Your task to perform on an android device: Open sound settings Image 0: 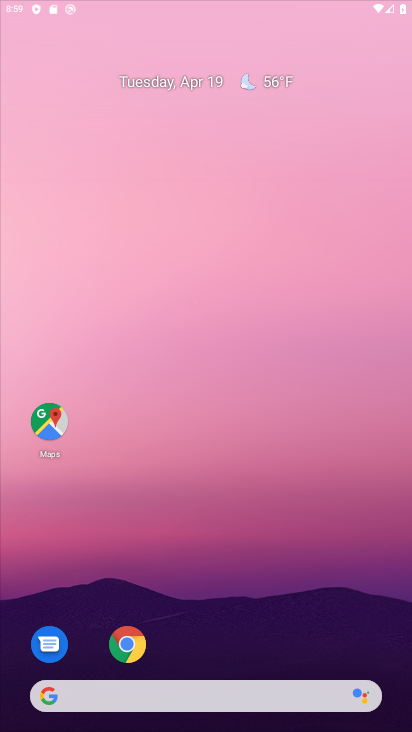
Step 0: drag from (193, 320) to (193, 48)
Your task to perform on an android device: Open sound settings Image 1: 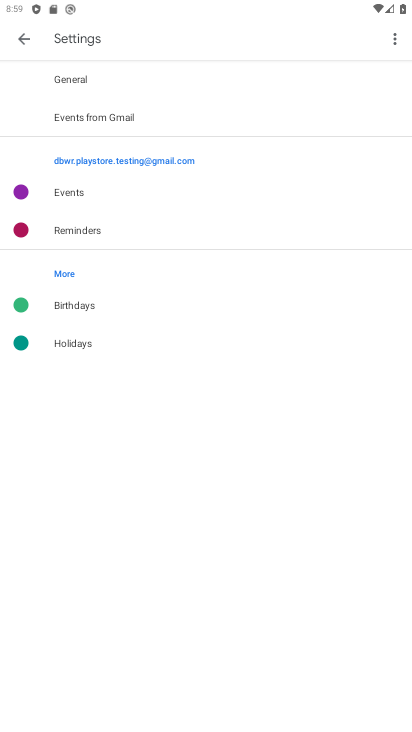
Step 1: press home button
Your task to perform on an android device: Open sound settings Image 2: 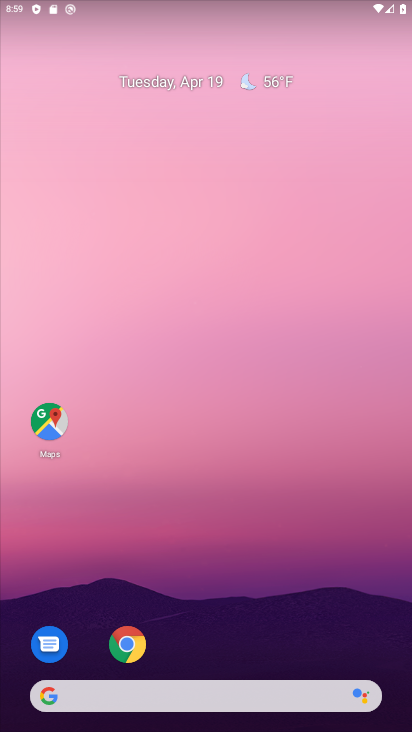
Step 2: drag from (222, 620) to (228, 145)
Your task to perform on an android device: Open sound settings Image 3: 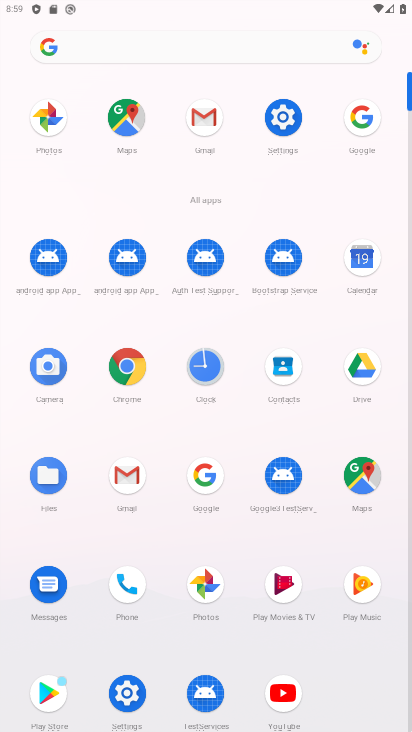
Step 3: click (291, 104)
Your task to perform on an android device: Open sound settings Image 4: 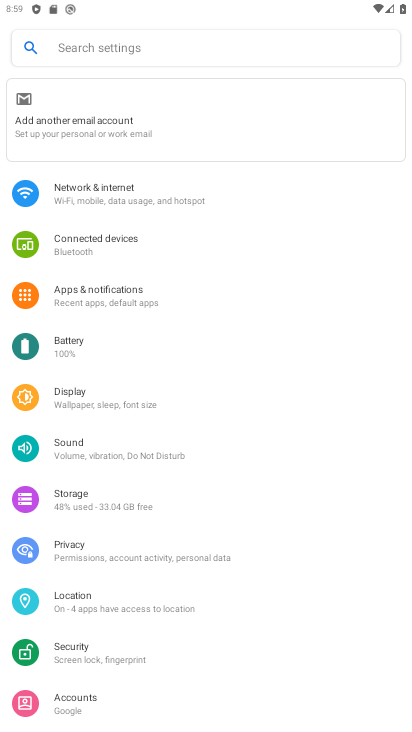
Step 4: click (93, 449)
Your task to perform on an android device: Open sound settings Image 5: 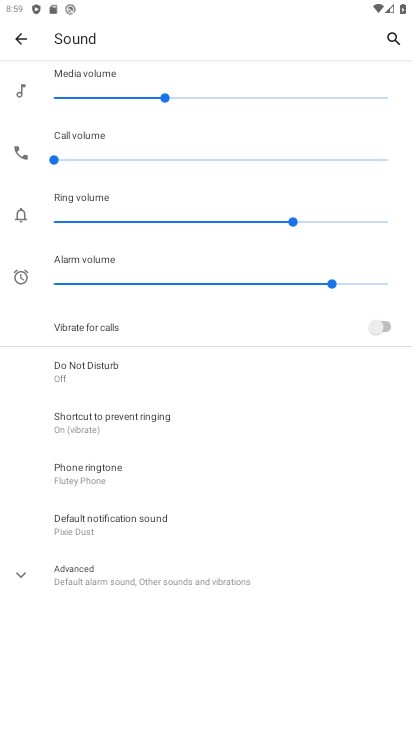
Step 5: task complete